Your task to perform on an android device: Clear all items from cart on newegg. Search for "duracell triple a" on newegg, select the first entry, add it to the cart, then select checkout. Image 0: 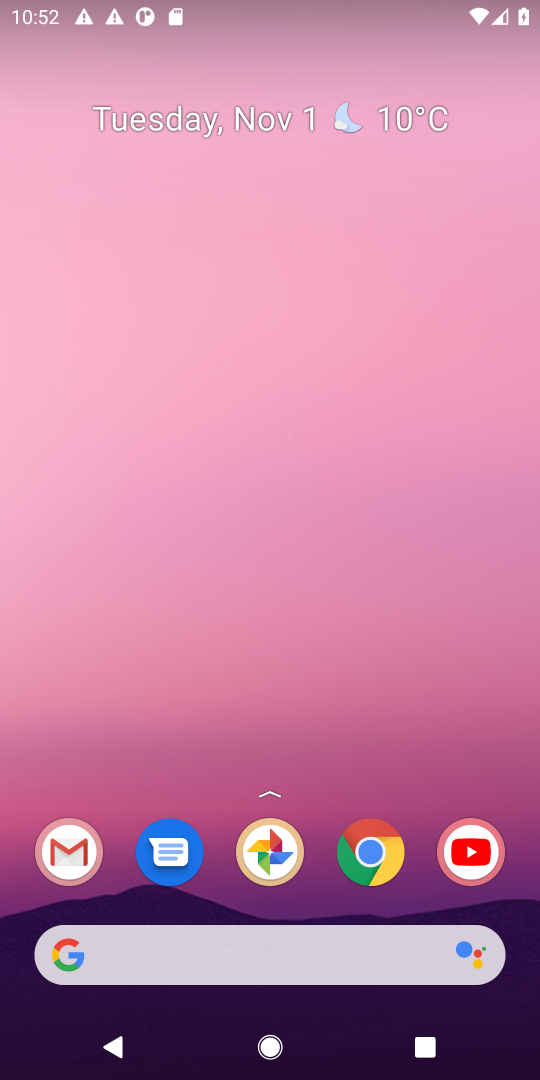
Step 0: press home button
Your task to perform on an android device: Clear all items from cart on newegg. Search for "duracell triple a" on newegg, select the first entry, add it to the cart, then select checkout. Image 1: 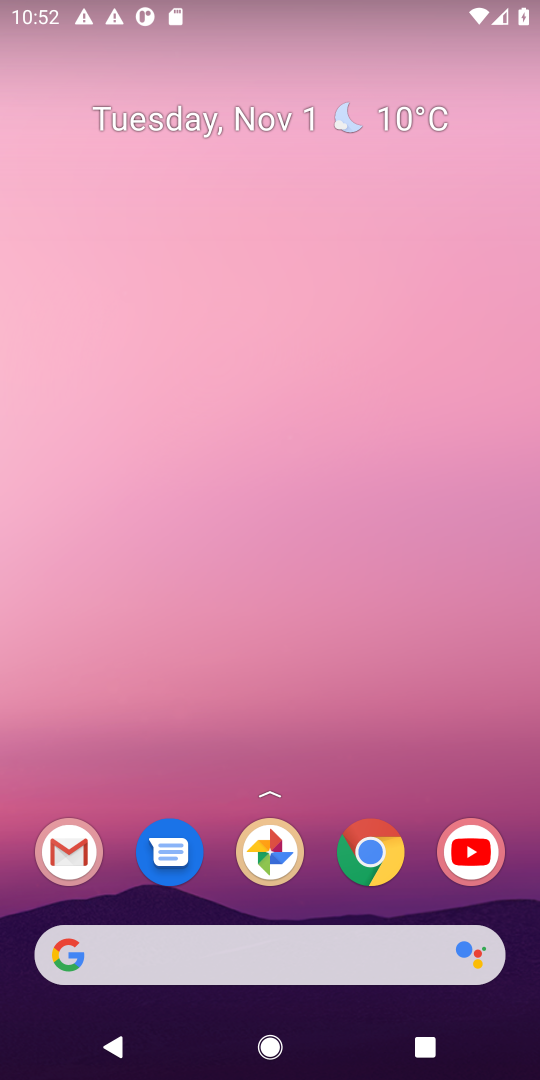
Step 1: click (63, 961)
Your task to perform on an android device: Clear all items from cart on newegg. Search for "duracell triple a" on newegg, select the first entry, add it to the cart, then select checkout. Image 2: 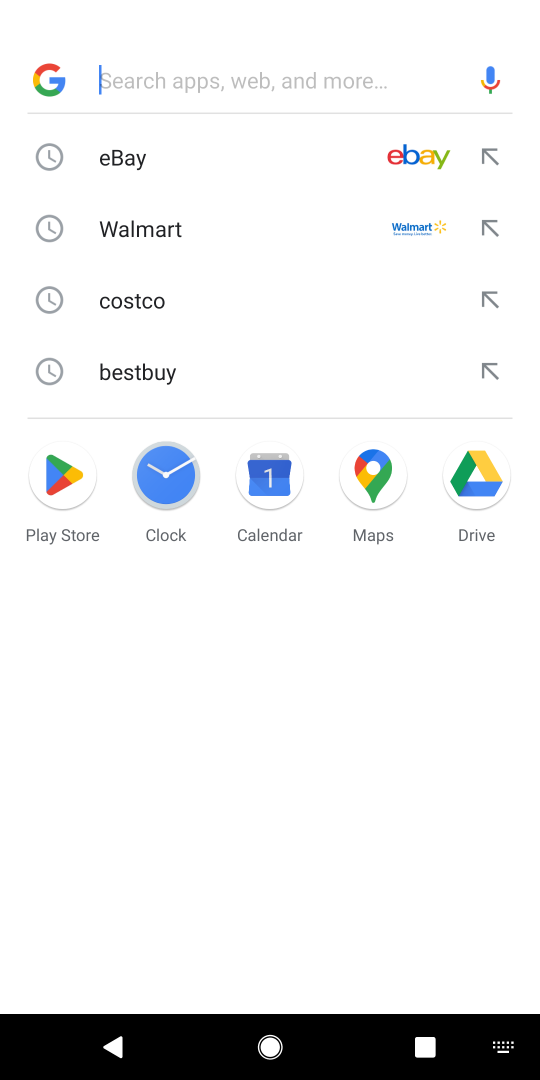
Step 2: type "newegg"
Your task to perform on an android device: Clear all items from cart on newegg. Search for "duracell triple a" on newegg, select the first entry, add it to the cart, then select checkout. Image 3: 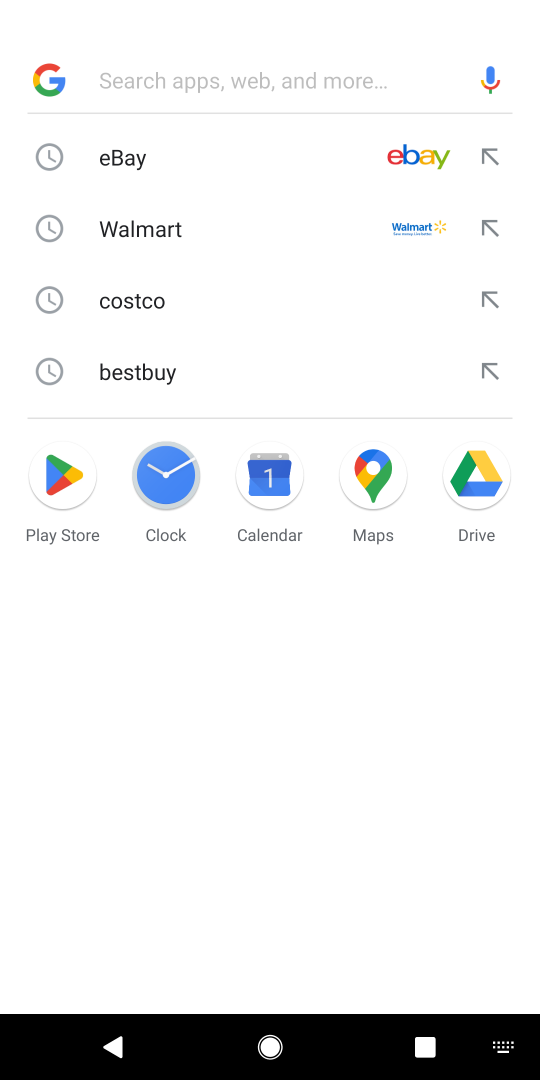
Step 3: click (156, 73)
Your task to perform on an android device: Clear all items from cart on newegg. Search for "duracell triple a" on newegg, select the first entry, add it to the cart, then select checkout. Image 4: 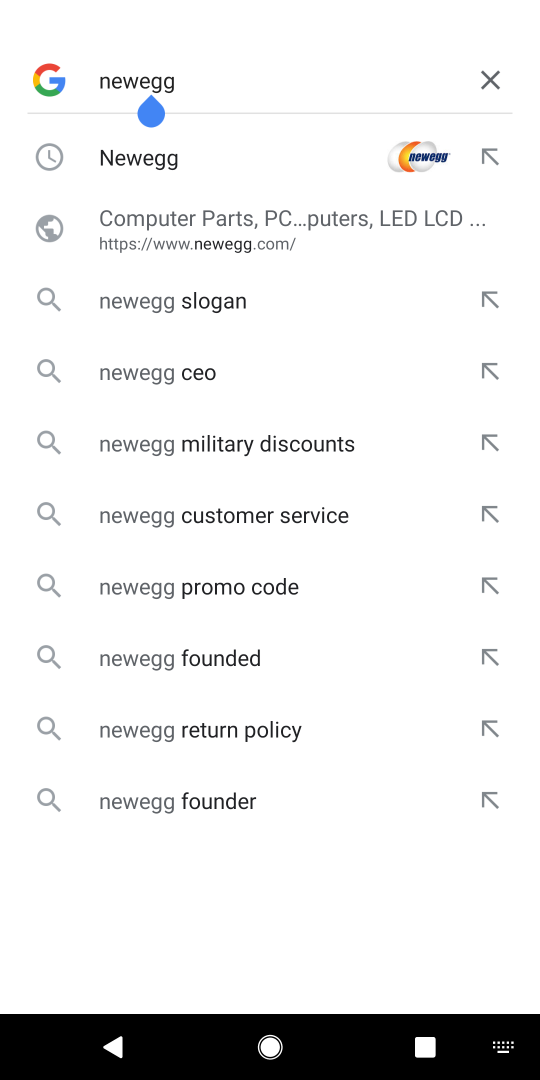
Step 4: click (153, 160)
Your task to perform on an android device: Clear all items from cart on newegg. Search for "duracell triple a" on newegg, select the first entry, add it to the cart, then select checkout. Image 5: 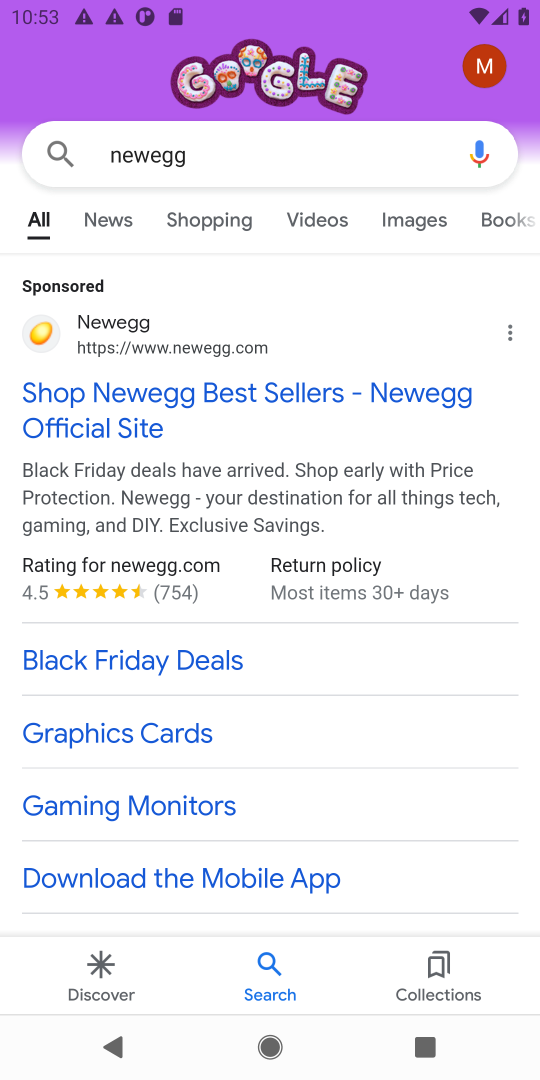
Step 5: click (104, 399)
Your task to perform on an android device: Clear all items from cart on newegg. Search for "duracell triple a" on newegg, select the first entry, add it to the cart, then select checkout. Image 6: 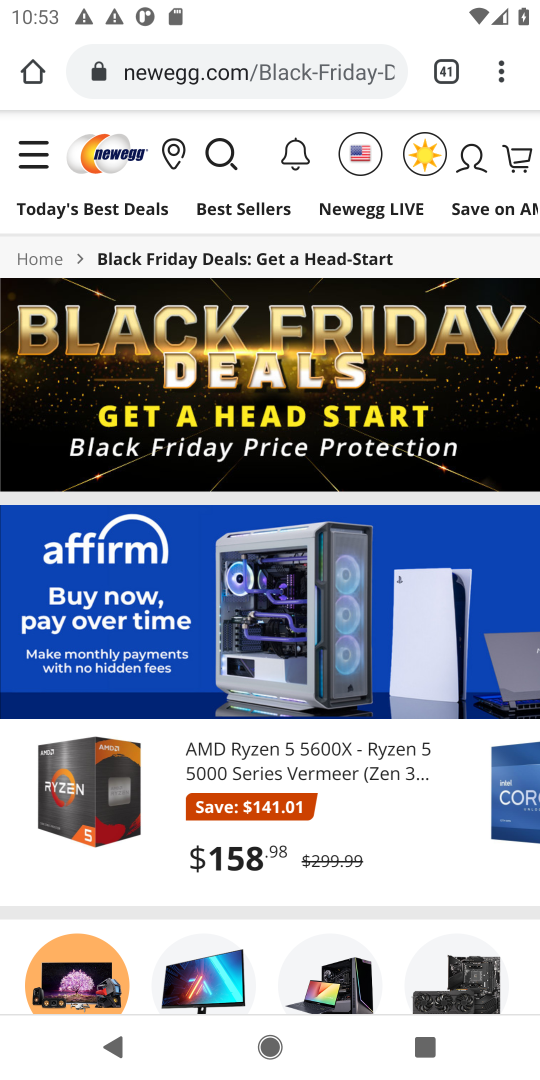
Step 6: click (202, 153)
Your task to perform on an android device: Clear all items from cart on newegg. Search for "duracell triple a" on newegg, select the first entry, add it to the cart, then select checkout. Image 7: 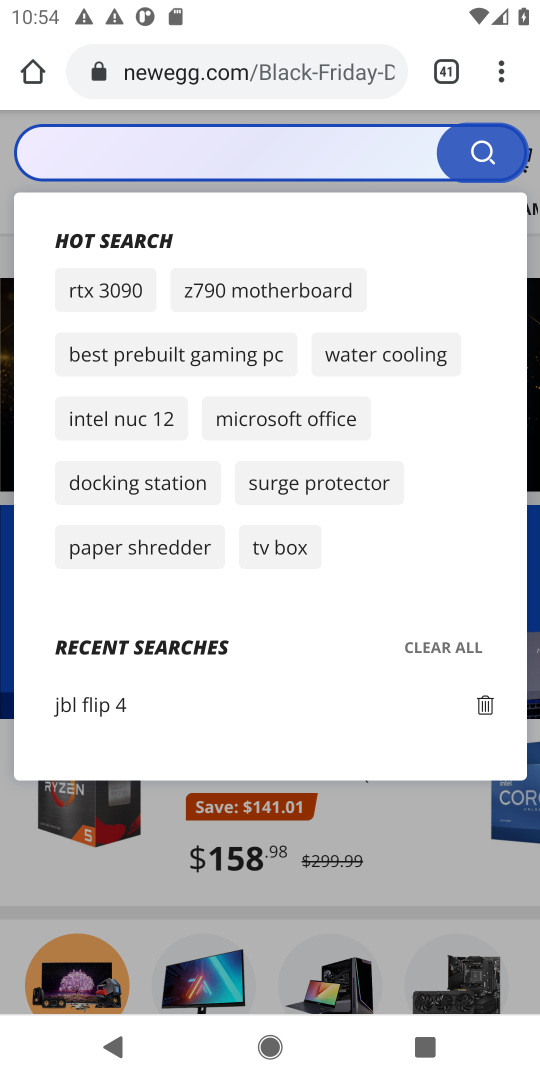
Step 7: type "duracell triple a"
Your task to perform on an android device: Clear all items from cart on newegg. Search for "duracell triple a" on newegg, select the first entry, add it to the cart, then select checkout. Image 8: 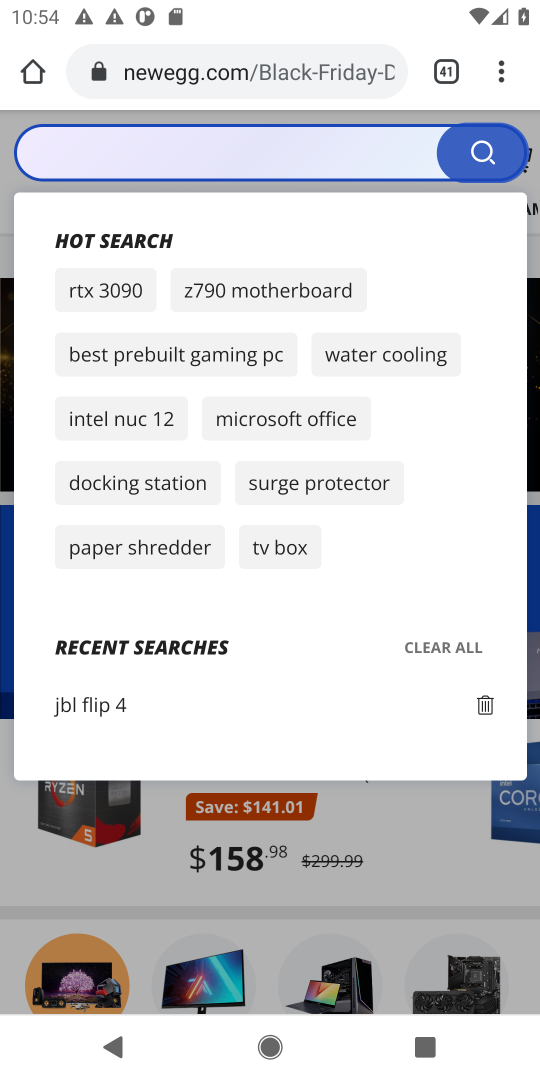
Step 8: click (96, 154)
Your task to perform on an android device: Clear all items from cart on newegg. Search for "duracell triple a" on newegg, select the first entry, add it to the cart, then select checkout. Image 9: 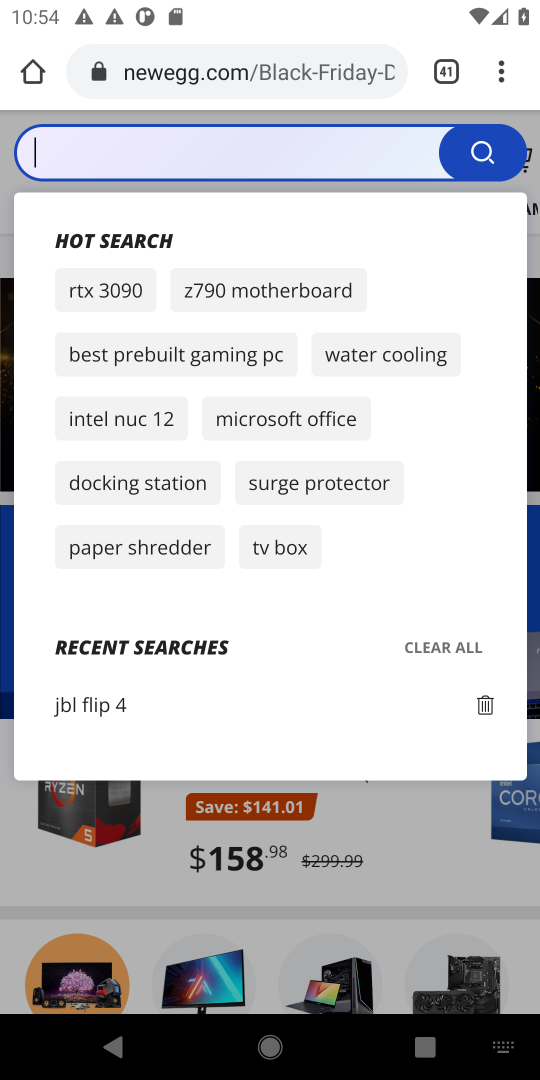
Step 9: click (72, 151)
Your task to perform on an android device: Clear all items from cart on newegg. Search for "duracell triple a" on newegg, select the first entry, add it to the cart, then select checkout. Image 10: 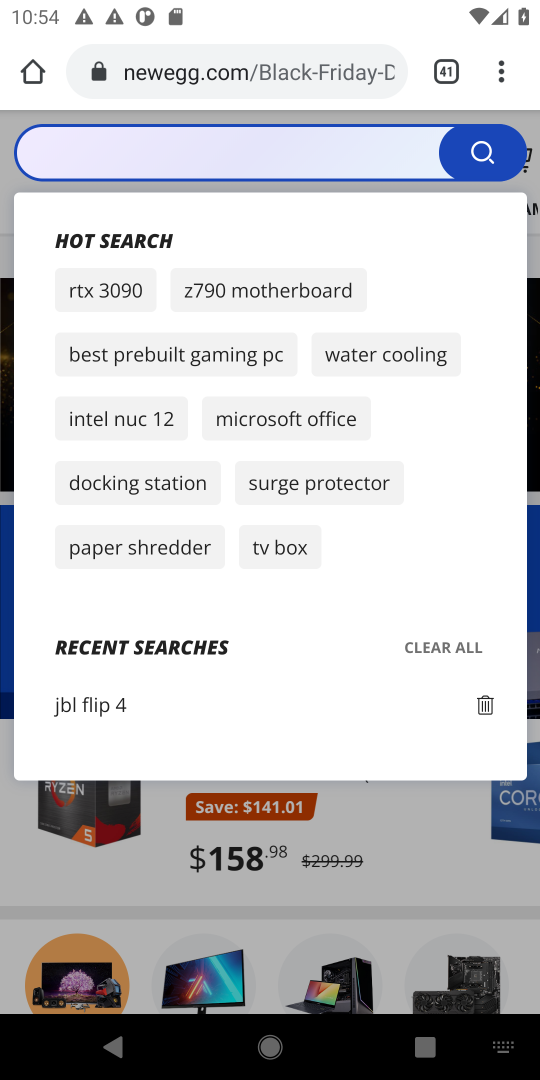
Step 10: click (111, 153)
Your task to perform on an android device: Clear all items from cart on newegg. Search for "duracell triple a" on newegg, select the first entry, add it to the cart, then select checkout. Image 11: 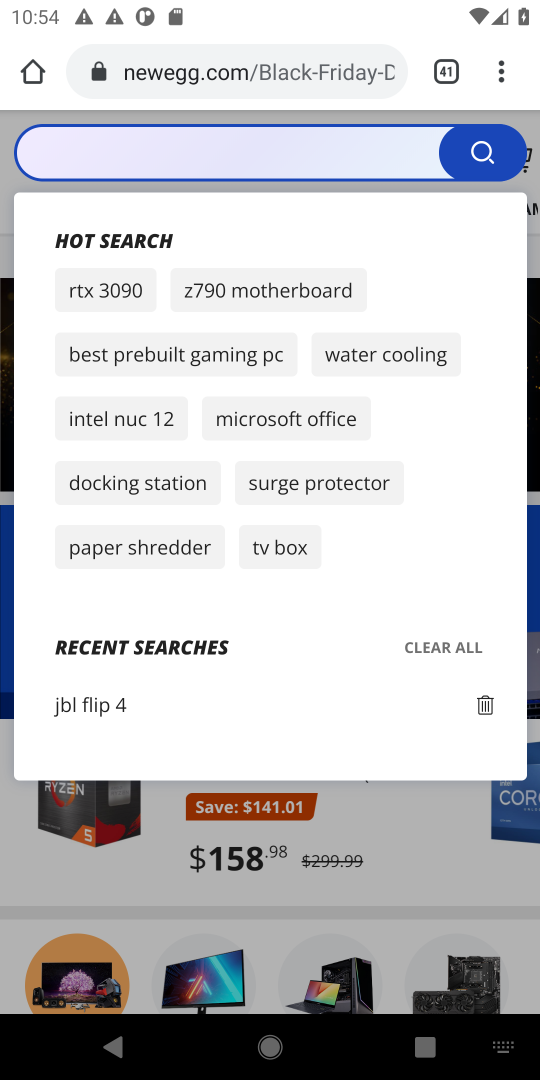
Step 11: type "duracell triple a"
Your task to perform on an android device: Clear all items from cart on newegg. Search for "duracell triple a" on newegg, select the first entry, add it to the cart, then select checkout. Image 12: 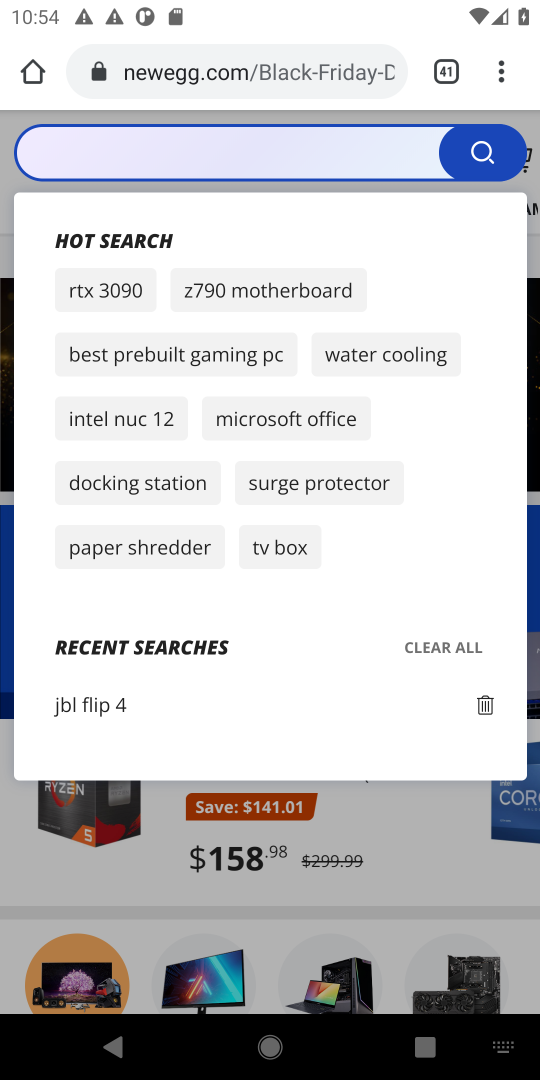
Step 12: click (48, 157)
Your task to perform on an android device: Clear all items from cart on newegg. Search for "duracell triple a" on newegg, select the first entry, add it to the cart, then select checkout. Image 13: 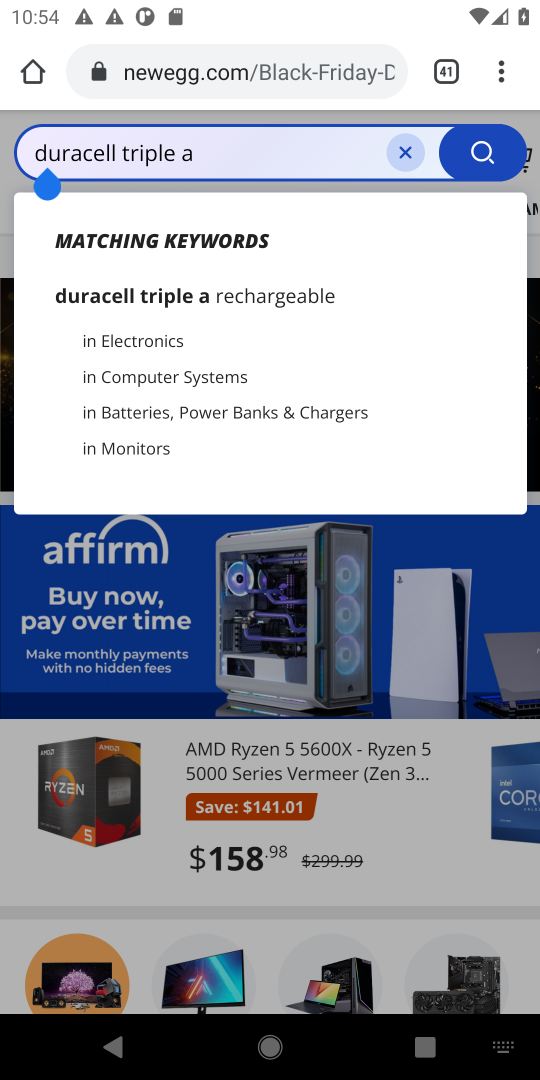
Step 13: click (471, 151)
Your task to perform on an android device: Clear all items from cart on newegg. Search for "duracell triple a" on newegg, select the first entry, add it to the cart, then select checkout. Image 14: 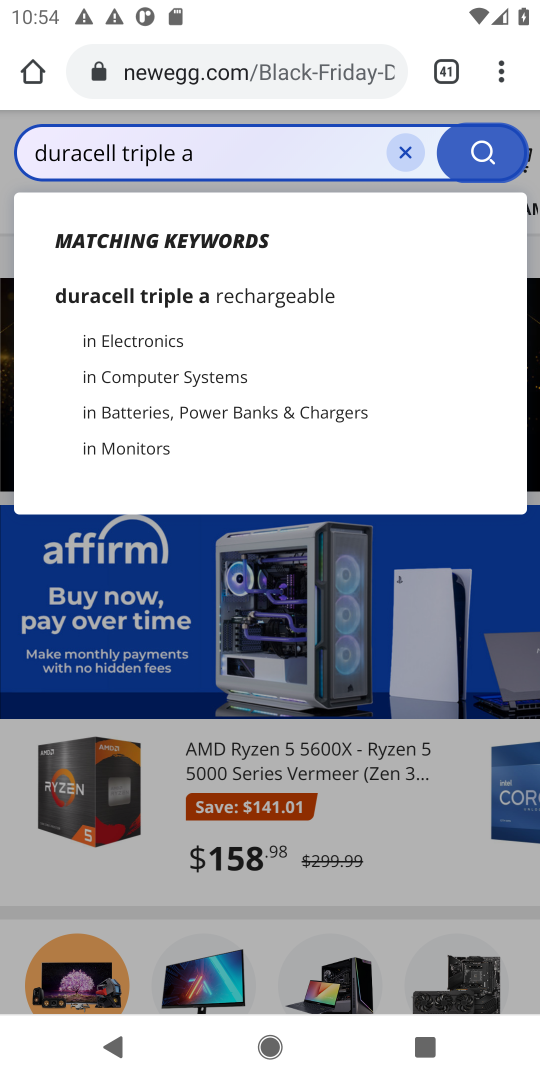
Step 14: click (251, 155)
Your task to perform on an android device: Clear all items from cart on newegg. Search for "duracell triple a" on newegg, select the first entry, add it to the cart, then select checkout. Image 15: 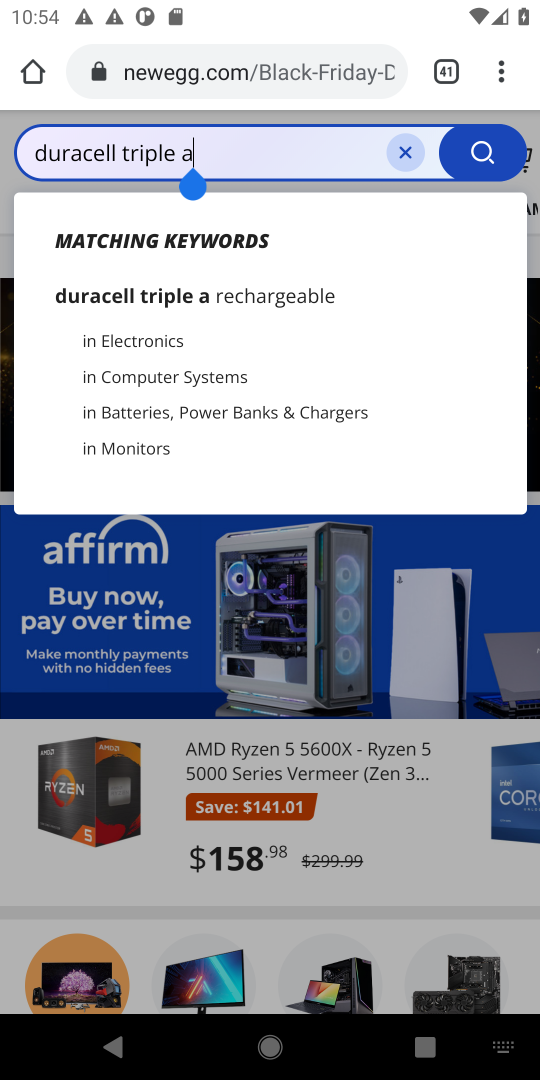
Step 15: press enter
Your task to perform on an android device: Clear all items from cart on newegg. Search for "duracell triple a" on newegg, select the first entry, add it to the cart, then select checkout. Image 16: 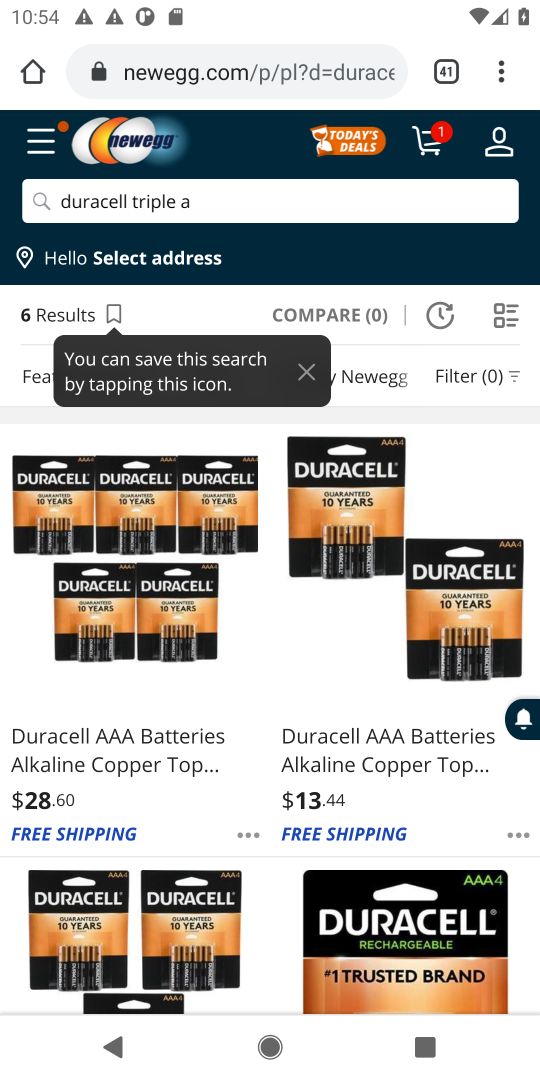
Step 16: click (83, 733)
Your task to perform on an android device: Clear all items from cart on newegg. Search for "duracell triple a" on newegg, select the first entry, add it to the cart, then select checkout. Image 17: 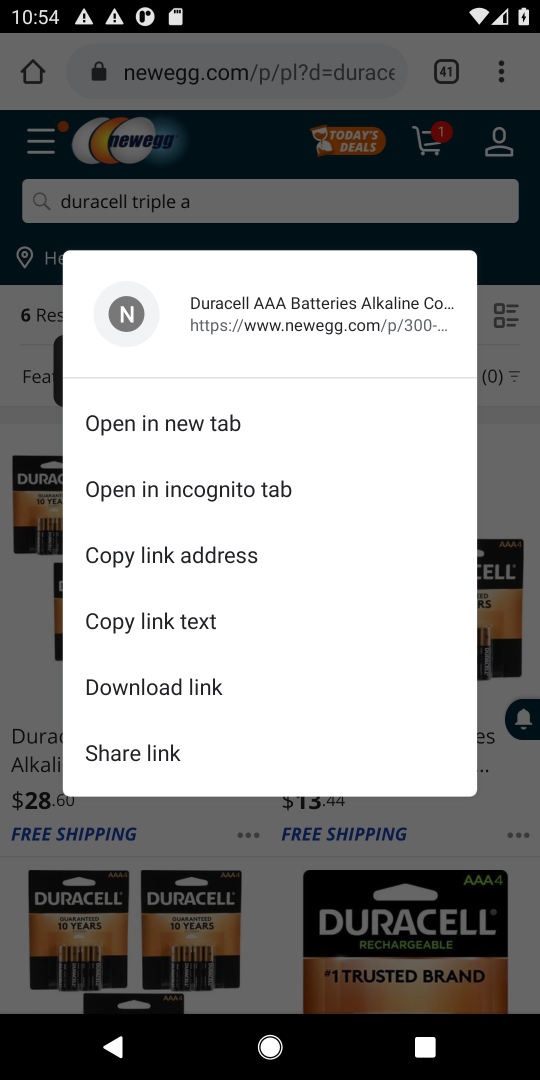
Step 17: click (17, 743)
Your task to perform on an android device: Clear all items from cart on newegg. Search for "duracell triple a" on newegg, select the first entry, add it to the cart, then select checkout. Image 18: 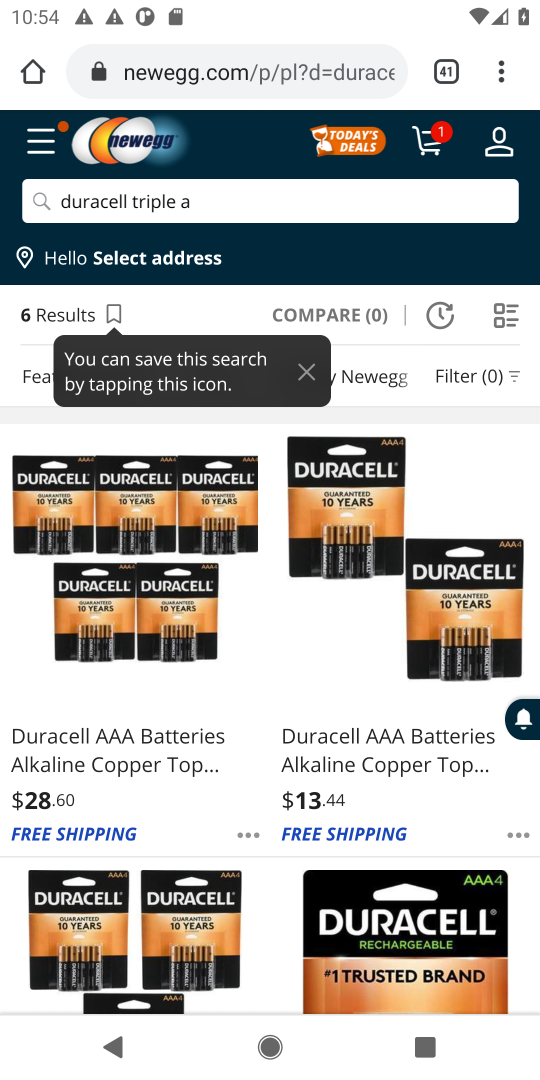
Step 18: click (35, 740)
Your task to perform on an android device: Clear all items from cart on newegg. Search for "duracell triple a" on newegg, select the first entry, add it to the cart, then select checkout. Image 19: 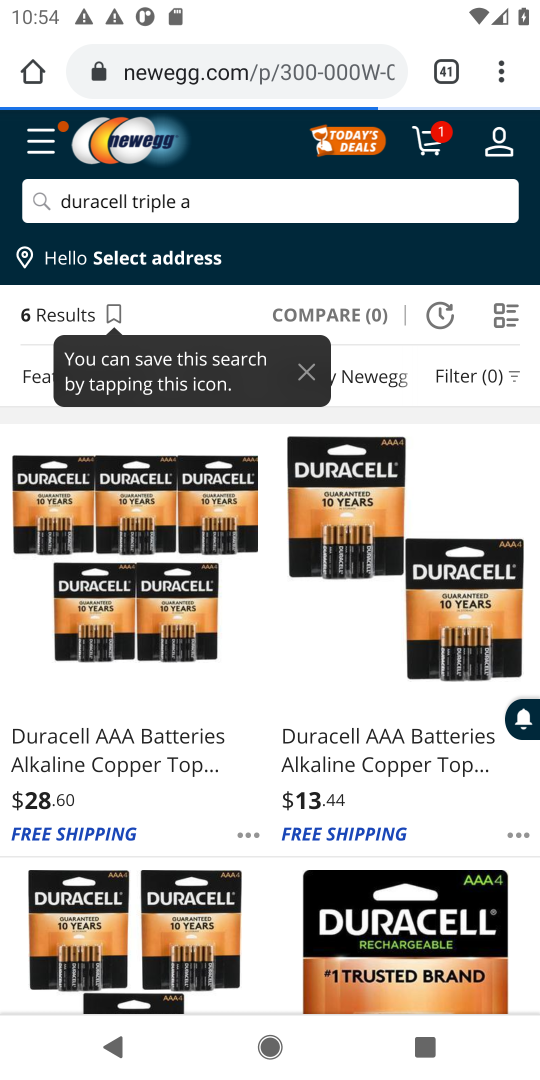
Step 19: click (121, 576)
Your task to perform on an android device: Clear all items from cart on newegg. Search for "duracell triple a" on newegg, select the first entry, add it to the cart, then select checkout. Image 20: 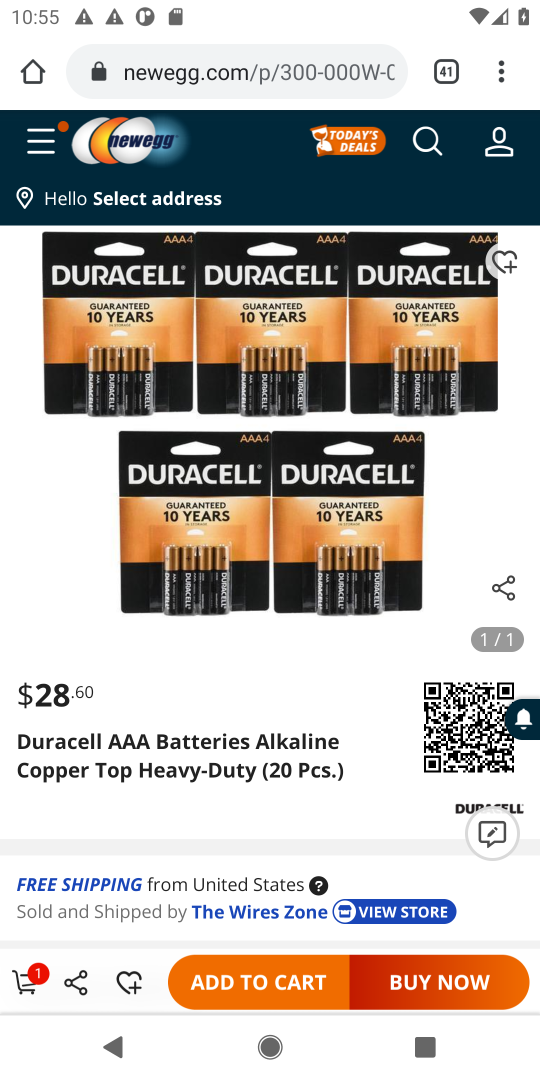
Step 20: click (260, 985)
Your task to perform on an android device: Clear all items from cart on newegg. Search for "duracell triple a" on newegg, select the first entry, add it to the cart, then select checkout. Image 21: 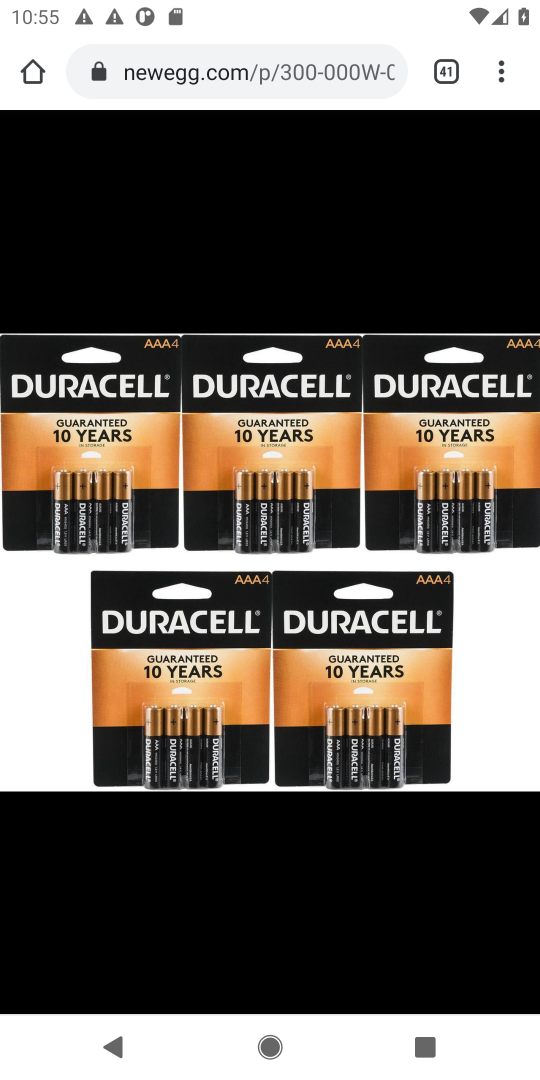
Step 21: click (503, 145)
Your task to perform on an android device: Clear all items from cart on newegg. Search for "duracell triple a" on newegg, select the first entry, add it to the cart, then select checkout. Image 22: 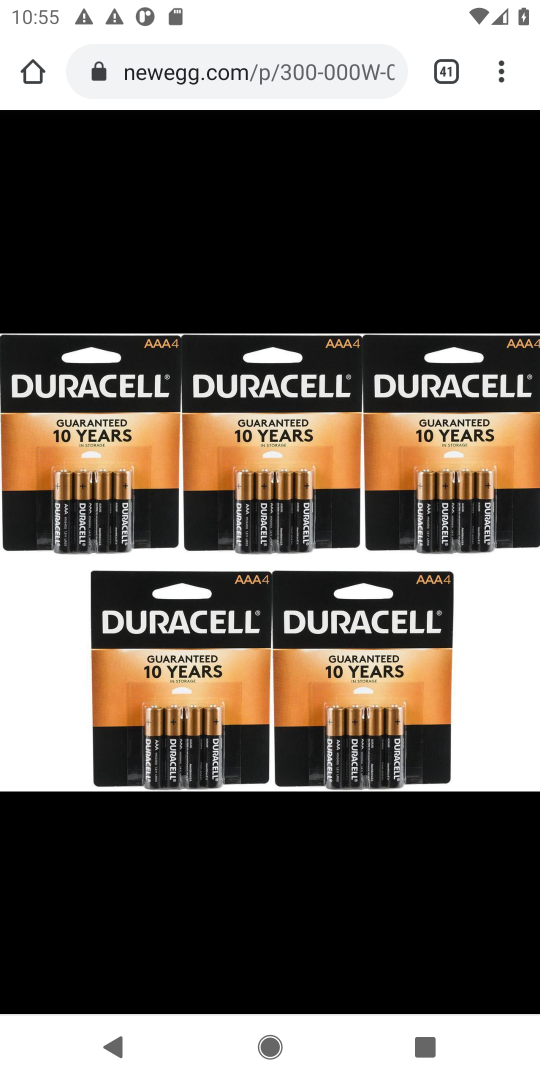
Step 22: press back button
Your task to perform on an android device: Clear all items from cart on newegg. Search for "duracell triple a" on newegg, select the first entry, add it to the cart, then select checkout. Image 23: 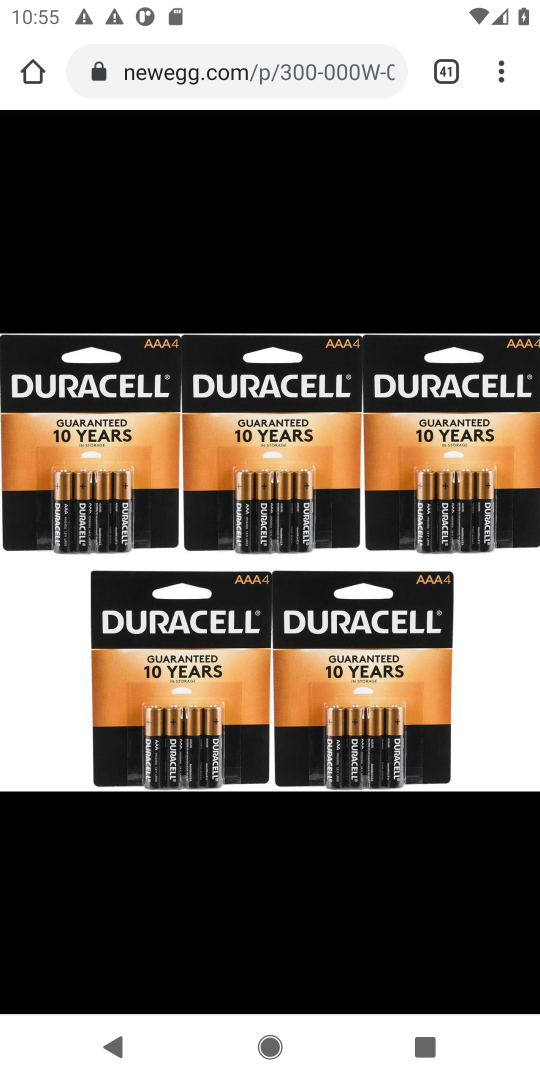
Step 23: press back button
Your task to perform on an android device: Clear all items from cart on newegg. Search for "duracell triple a" on newegg, select the first entry, add it to the cart, then select checkout. Image 24: 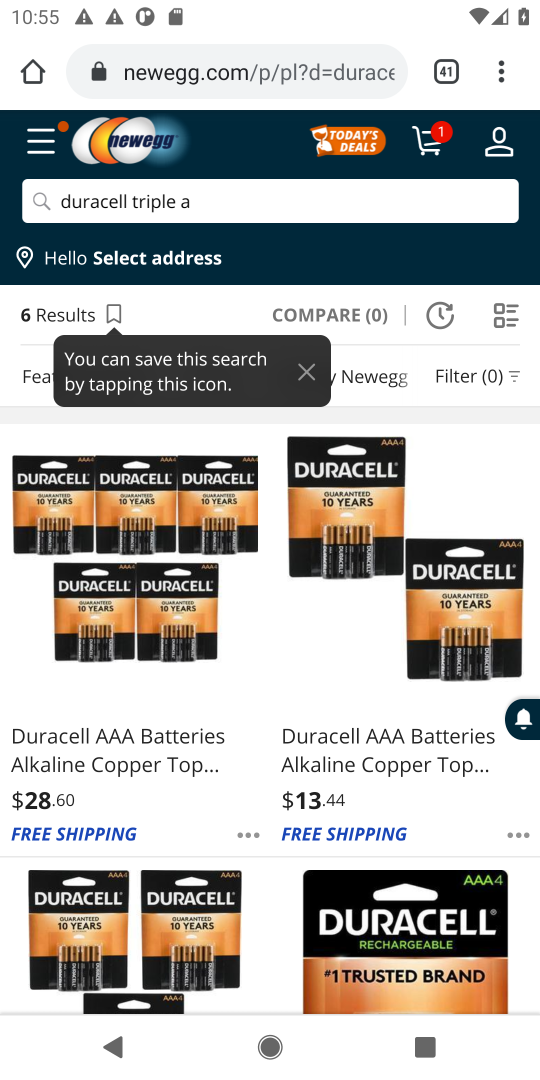
Step 24: click (131, 621)
Your task to perform on an android device: Clear all items from cart on newegg. Search for "duracell triple a" on newegg, select the first entry, add it to the cart, then select checkout. Image 25: 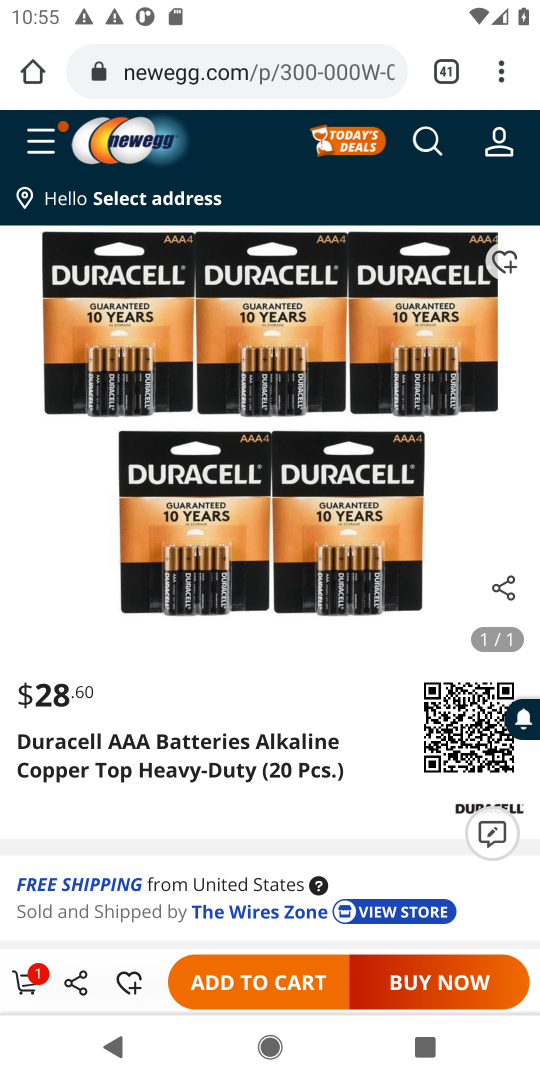
Step 25: click (251, 977)
Your task to perform on an android device: Clear all items from cart on newegg. Search for "duracell triple a" on newegg, select the first entry, add it to the cart, then select checkout. Image 26: 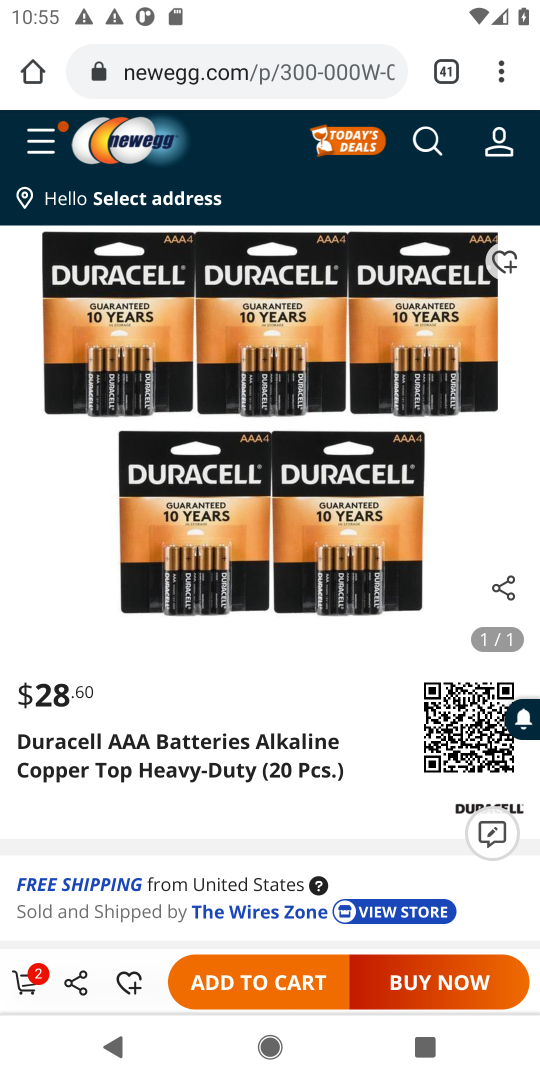
Step 26: click (31, 982)
Your task to perform on an android device: Clear all items from cart on newegg. Search for "duracell triple a" on newegg, select the first entry, add it to the cart, then select checkout. Image 27: 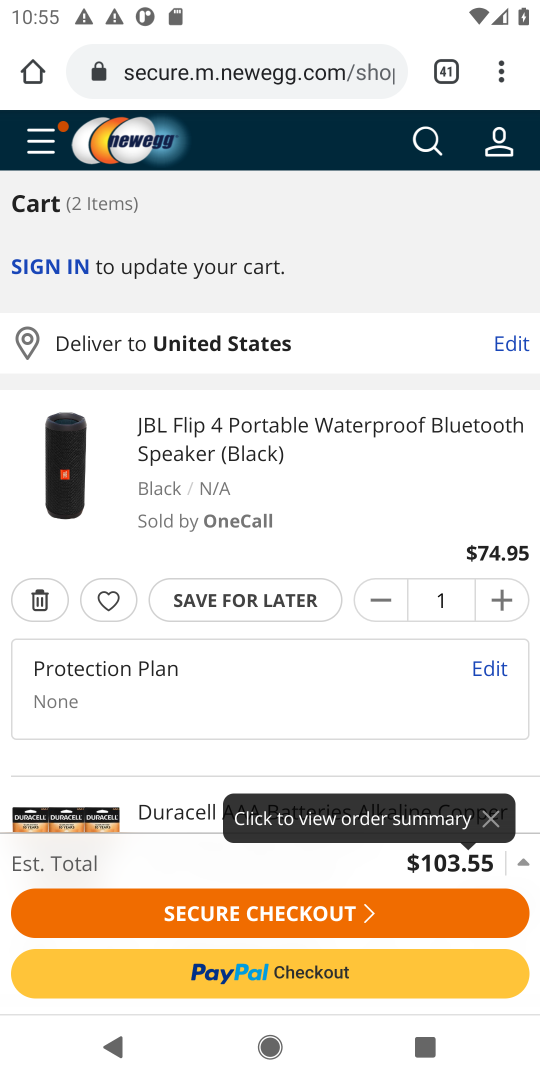
Step 27: click (34, 601)
Your task to perform on an android device: Clear all items from cart on newegg. Search for "duracell triple a" on newegg, select the first entry, add it to the cart, then select checkout. Image 28: 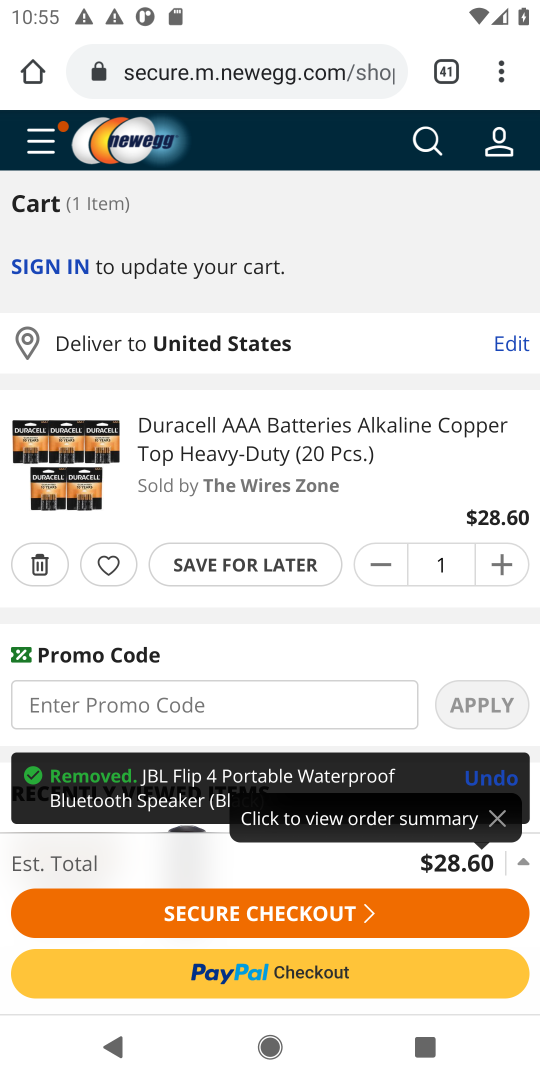
Step 28: click (300, 908)
Your task to perform on an android device: Clear all items from cart on newegg. Search for "duracell triple a" on newegg, select the first entry, add it to the cart, then select checkout. Image 29: 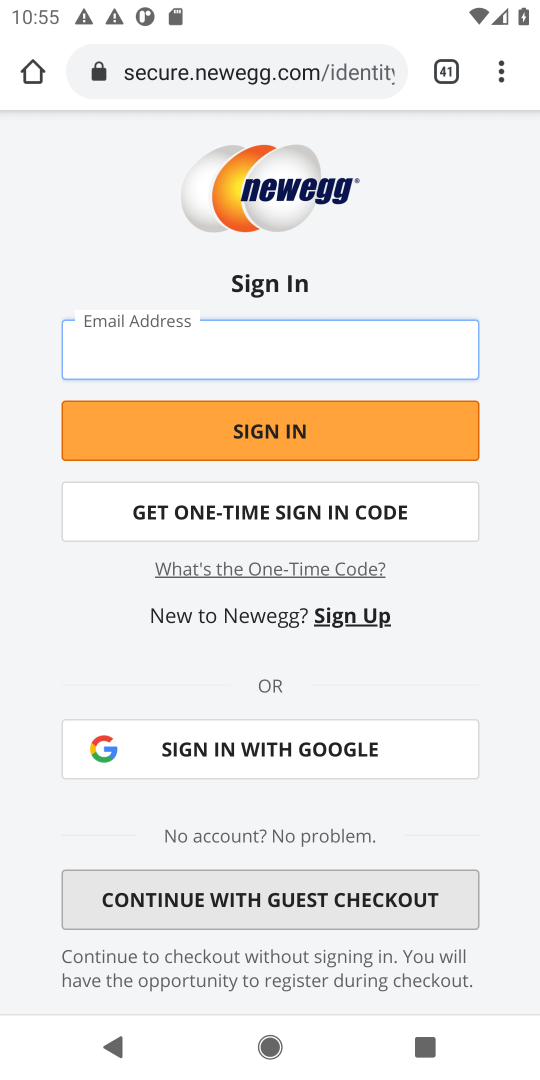
Step 29: task complete